Your task to perform on an android device: Turn on the flashlight Image 0: 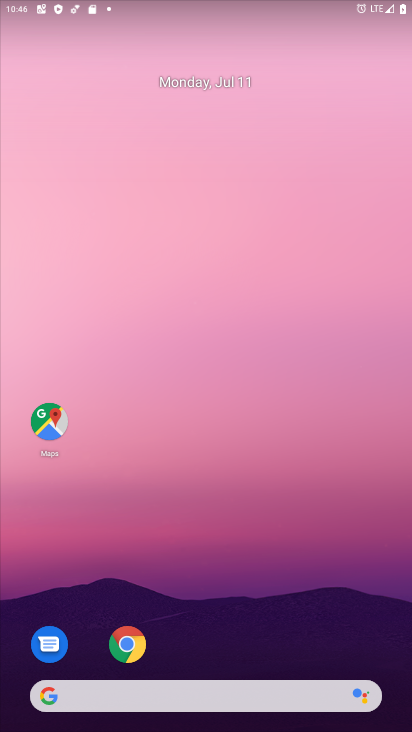
Step 0: drag from (215, 391) to (194, 268)
Your task to perform on an android device: Turn on the flashlight Image 1: 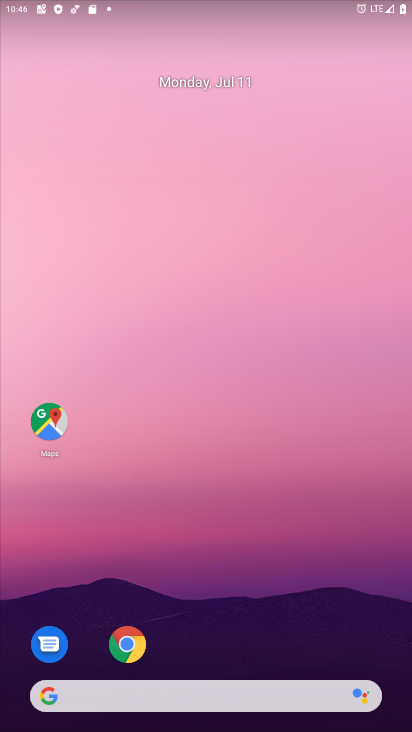
Step 1: drag from (202, 631) to (242, 149)
Your task to perform on an android device: Turn on the flashlight Image 2: 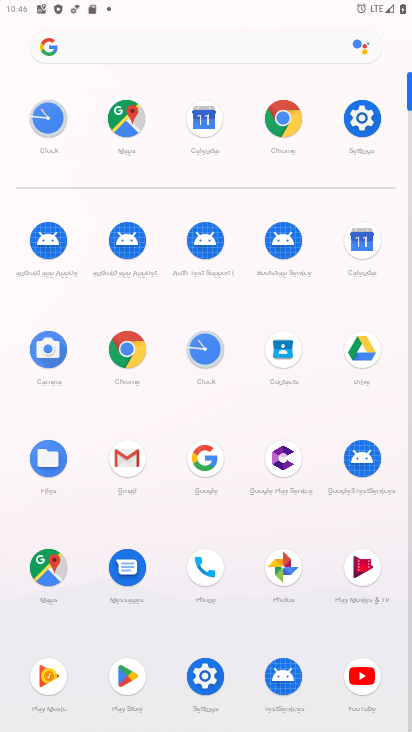
Step 2: click (363, 121)
Your task to perform on an android device: Turn on the flashlight Image 3: 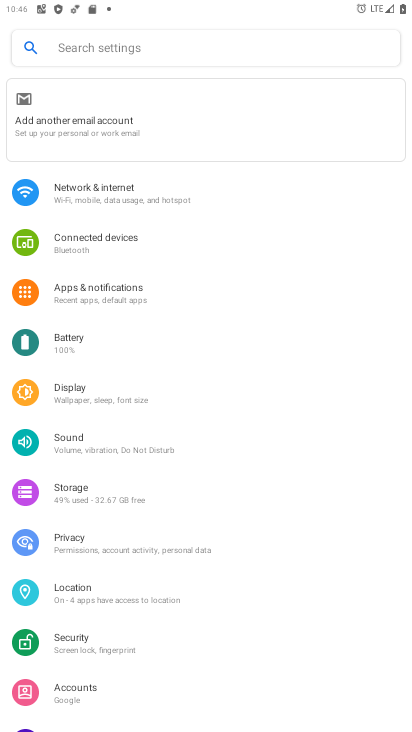
Step 3: task complete